Your task to perform on an android device: open app "Mercado Libre" (install if not already installed) and go to login screen Image 0: 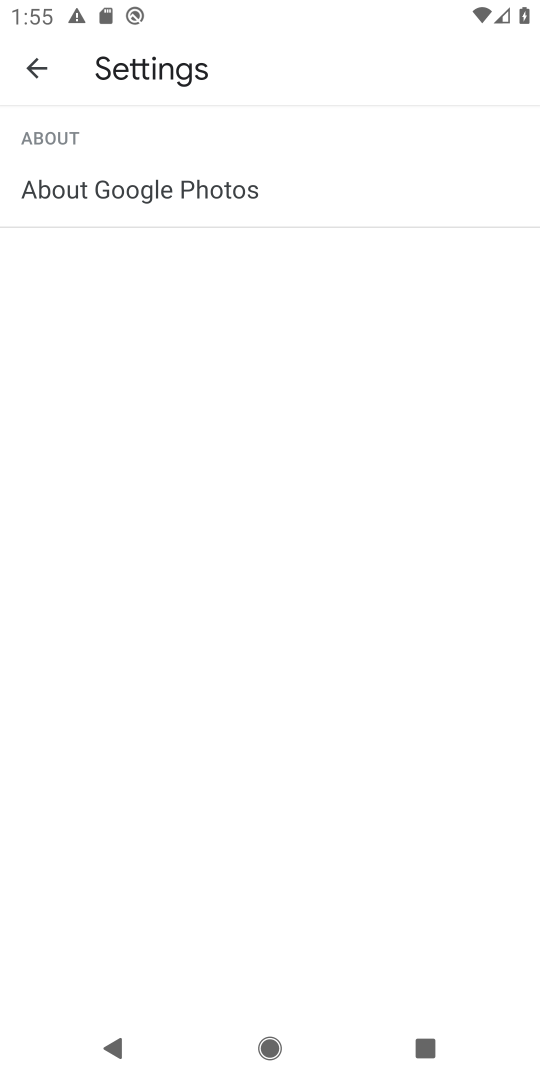
Step 0: press home button
Your task to perform on an android device: open app "Mercado Libre" (install if not already installed) and go to login screen Image 1: 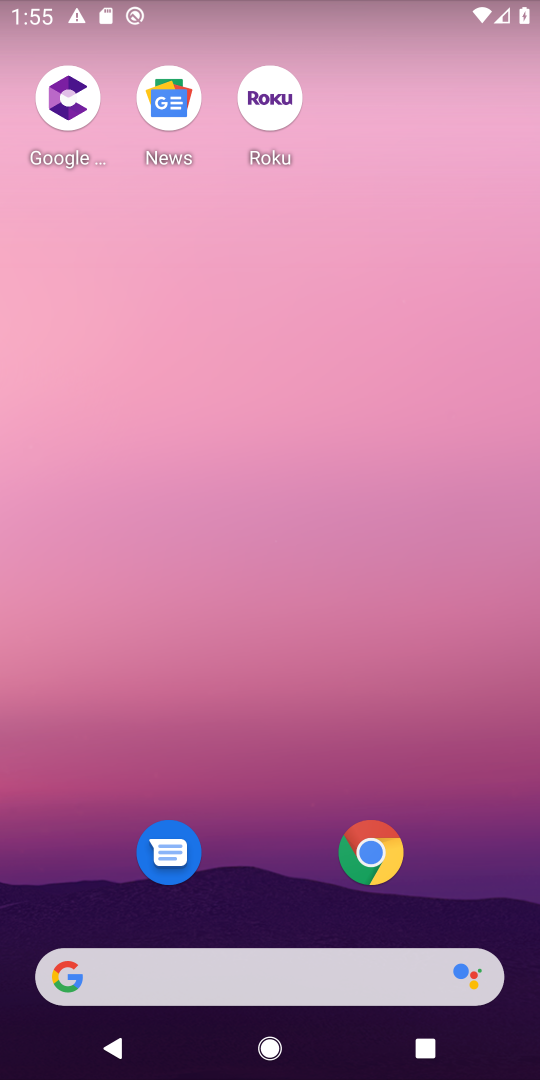
Step 1: drag from (277, 890) to (257, 71)
Your task to perform on an android device: open app "Mercado Libre" (install if not already installed) and go to login screen Image 2: 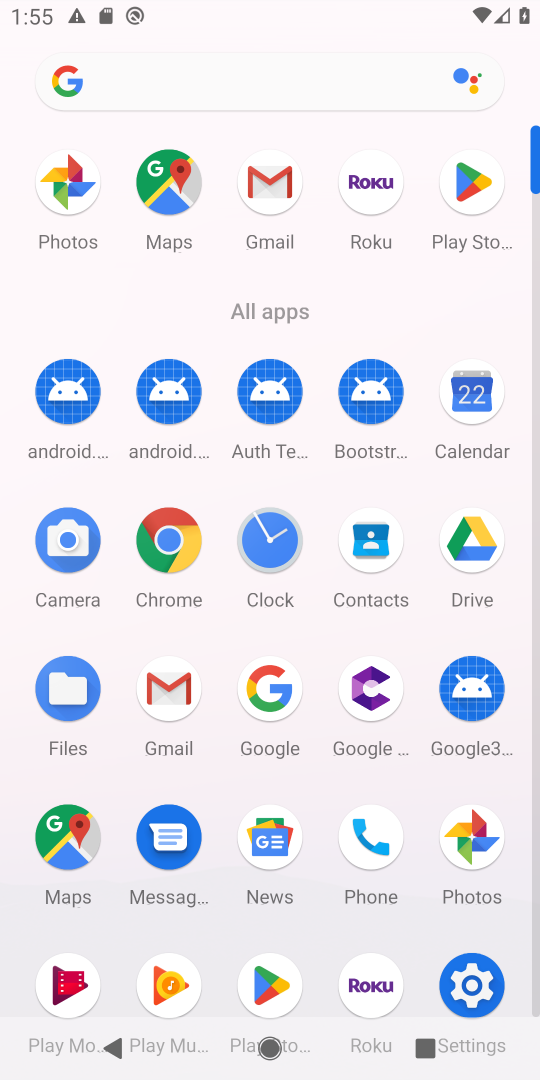
Step 2: click (467, 183)
Your task to perform on an android device: open app "Mercado Libre" (install if not already installed) and go to login screen Image 3: 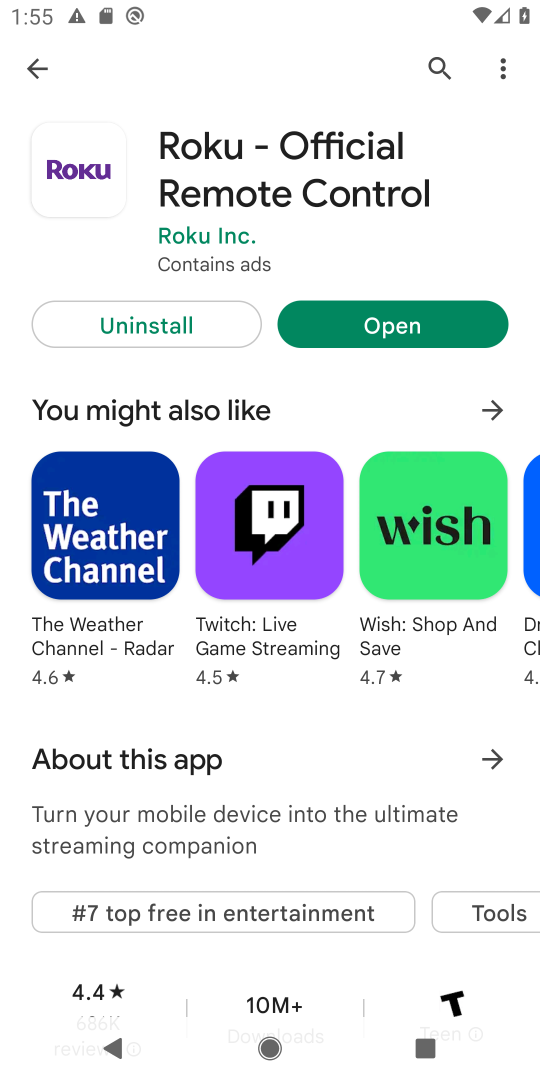
Step 3: click (443, 62)
Your task to perform on an android device: open app "Mercado Libre" (install if not already installed) and go to login screen Image 4: 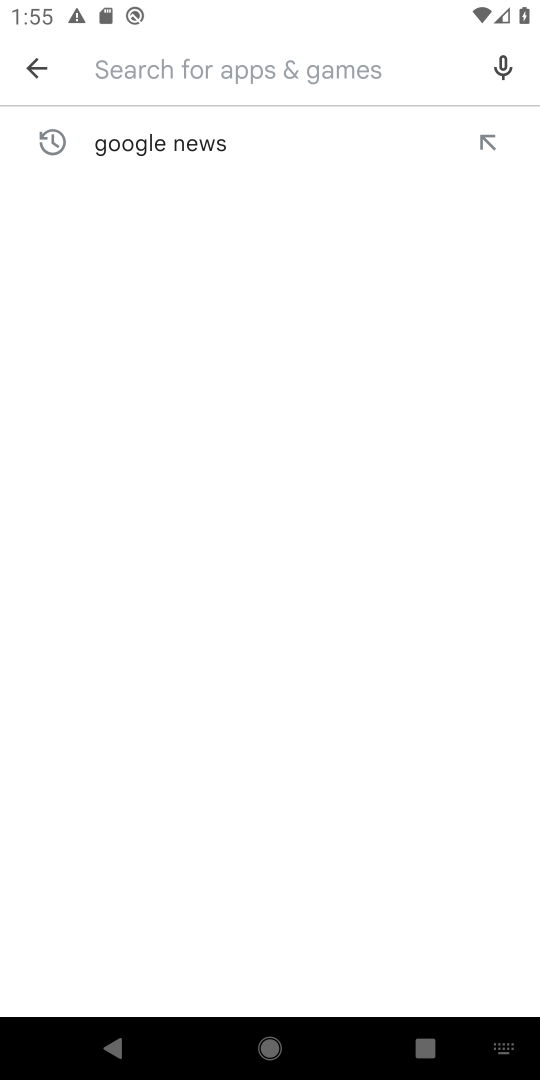
Step 4: type ""Mercado Libre"
Your task to perform on an android device: open app "Mercado Libre" (install if not already installed) and go to login screen Image 5: 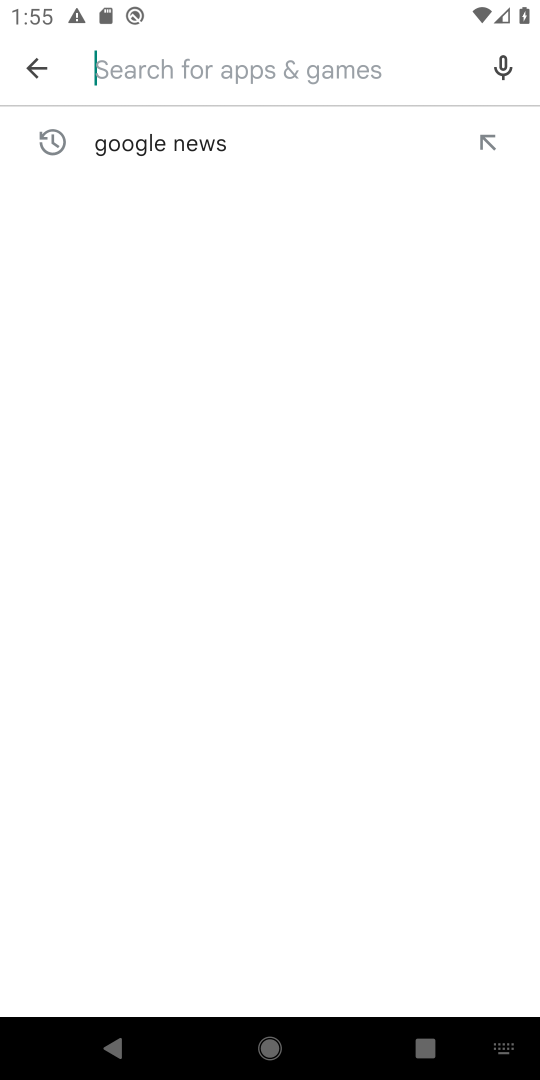
Step 5: type ""Mercado Libre"
Your task to perform on an android device: open app "Mercado Libre" (install if not already installed) and go to login screen Image 6: 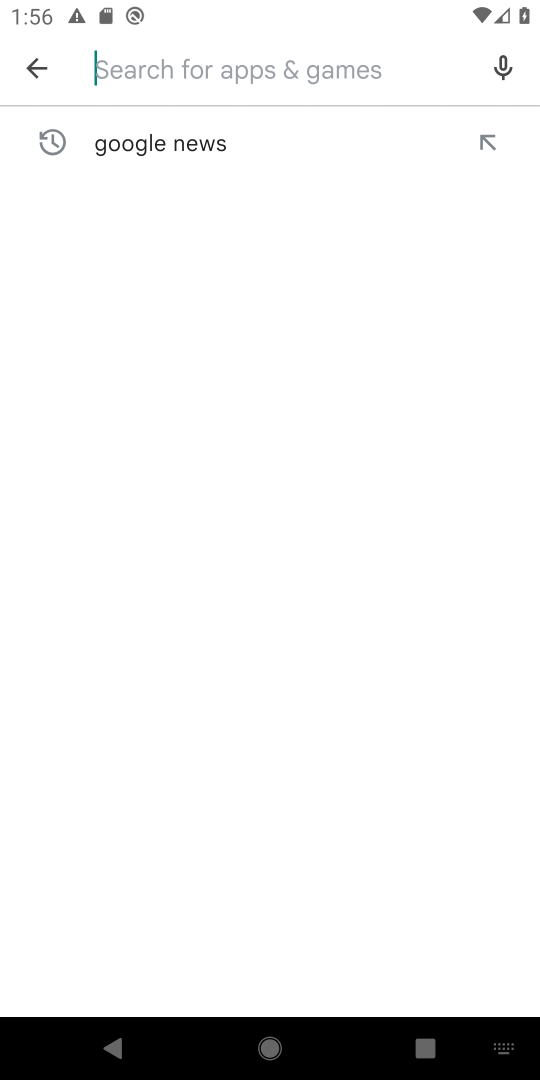
Step 6: type "Mercado"
Your task to perform on an android device: open app "Mercado Libre" (install if not already installed) and go to login screen Image 7: 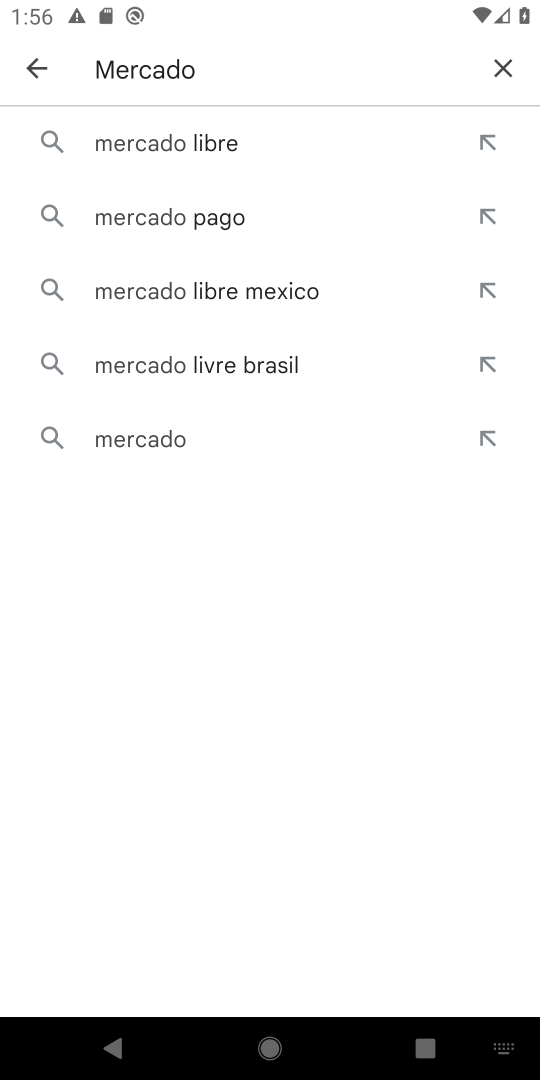
Step 7: type " Libre"
Your task to perform on an android device: open app "Mercado Libre" (install if not already installed) and go to login screen Image 8: 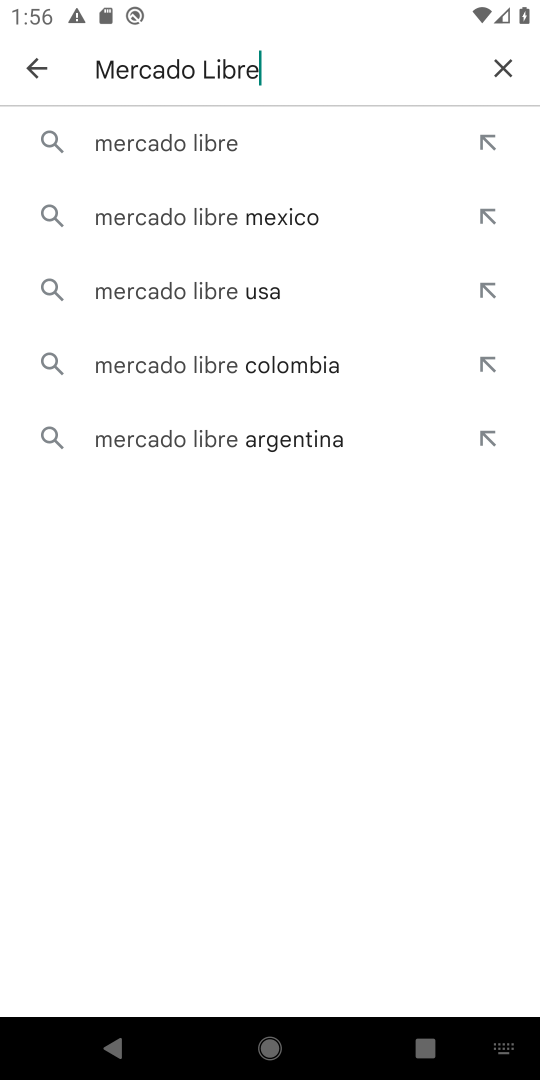
Step 8: click (206, 140)
Your task to perform on an android device: open app "Mercado Libre" (install if not already installed) and go to login screen Image 9: 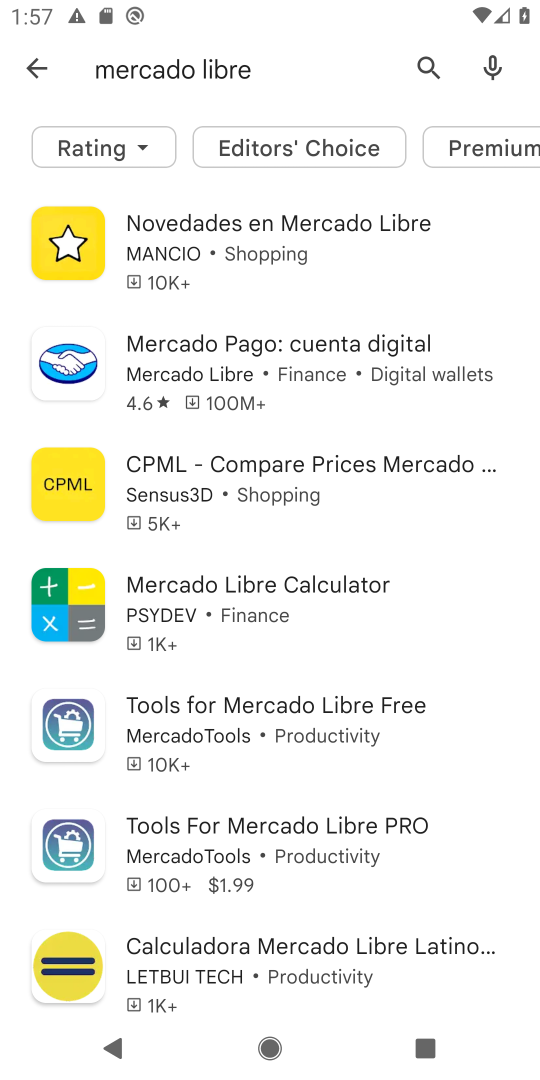
Step 9: task complete